Your task to perform on an android device: turn on improve location accuracy Image 0: 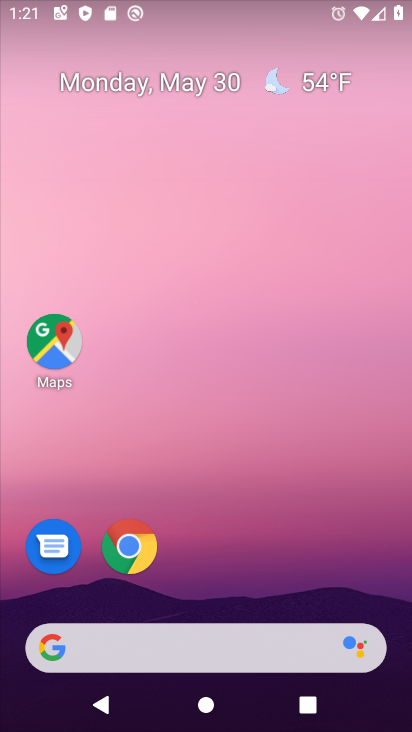
Step 0: press home button
Your task to perform on an android device: turn on improve location accuracy Image 1: 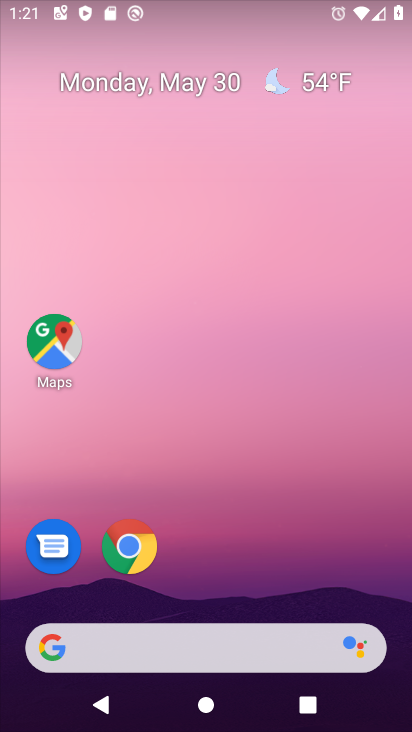
Step 1: drag from (233, 614) to (174, 227)
Your task to perform on an android device: turn on improve location accuracy Image 2: 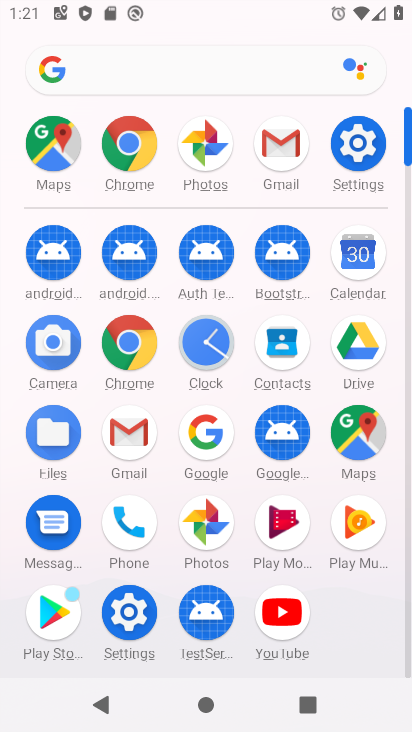
Step 2: click (358, 137)
Your task to perform on an android device: turn on improve location accuracy Image 3: 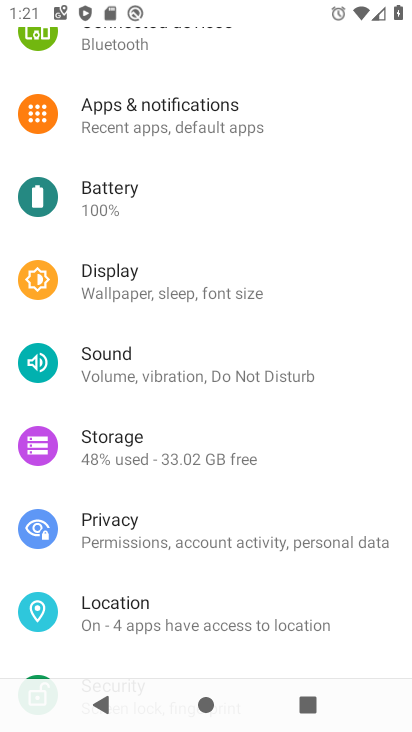
Step 3: click (116, 612)
Your task to perform on an android device: turn on improve location accuracy Image 4: 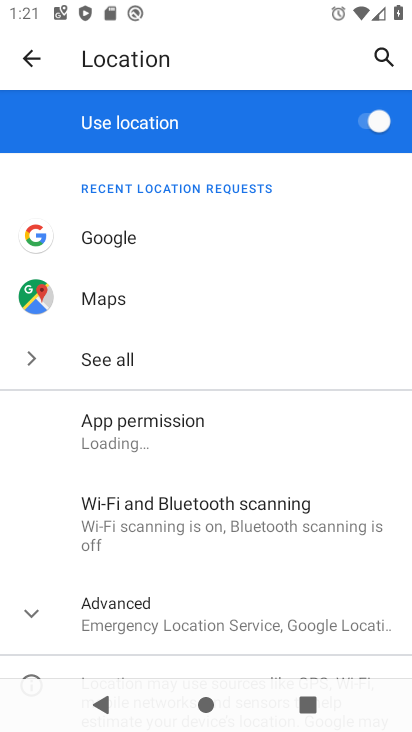
Step 4: click (140, 612)
Your task to perform on an android device: turn on improve location accuracy Image 5: 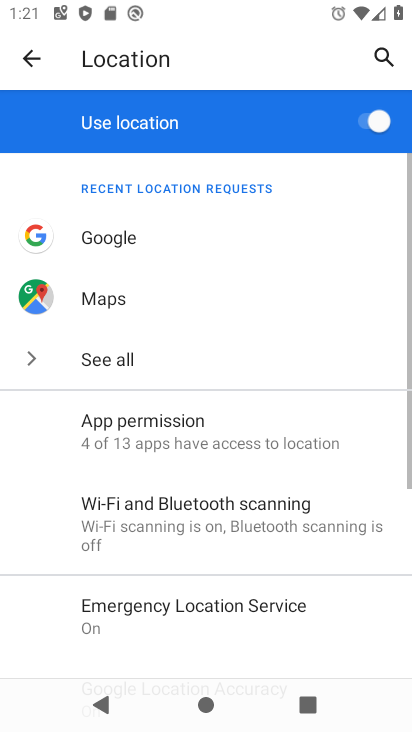
Step 5: drag from (341, 616) to (343, 212)
Your task to perform on an android device: turn on improve location accuracy Image 6: 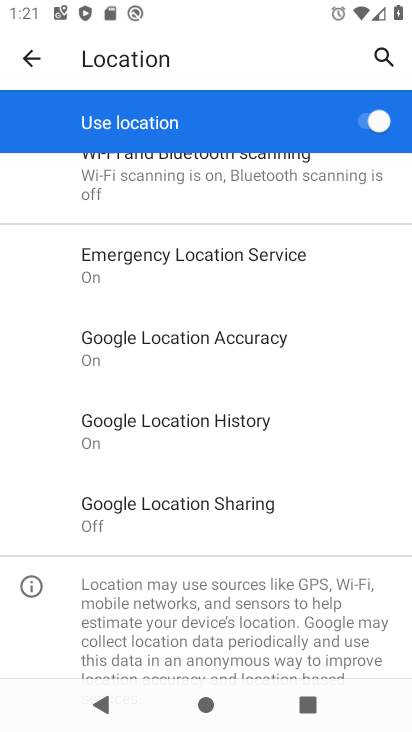
Step 6: click (186, 346)
Your task to perform on an android device: turn on improve location accuracy Image 7: 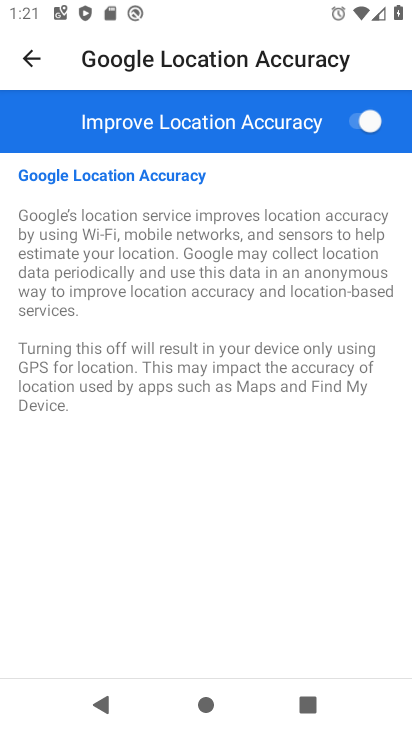
Step 7: task complete